Your task to perform on an android device: Show me recent news Image 0: 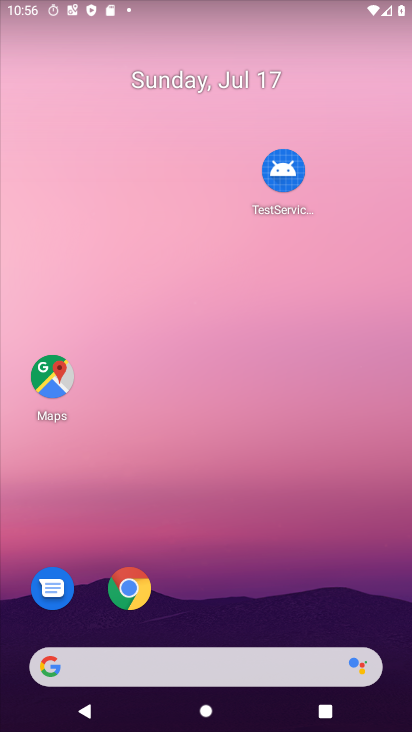
Step 0: drag from (135, 705) to (283, 71)
Your task to perform on an android device: Show me recent news Image 1: 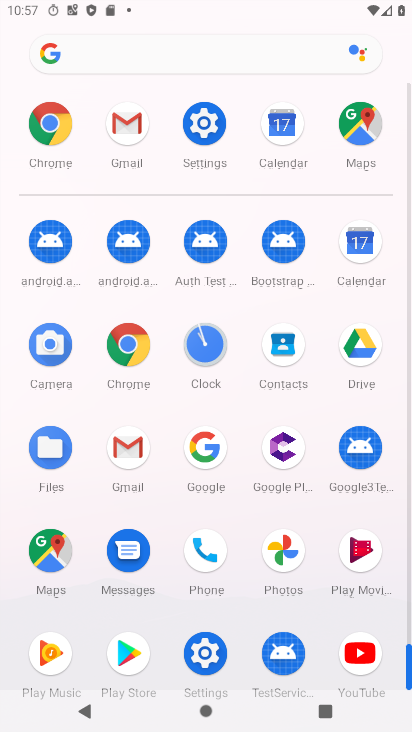
Step 1: click (209, 477)
Your task to perform on an android device: Show me recent news Image 2: 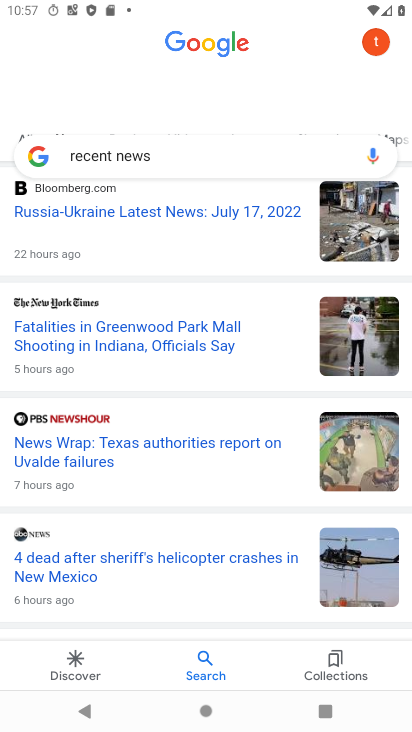
Step 2: task complete